Your task to perform on an android device: Check the news Image 0: 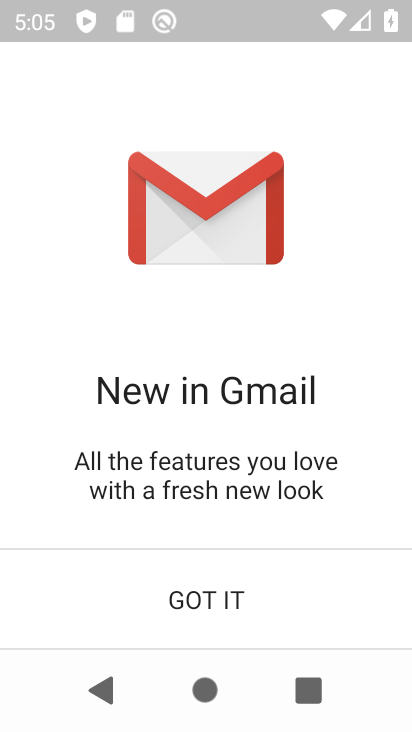
Step 0: press home button
Your task to perform on an android device: Check the news Image 1: 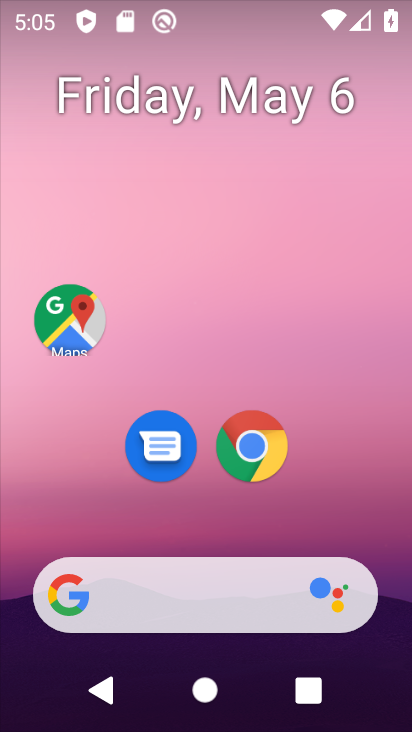
Step 1: task complete